Your task to perform on an android device: Add razer thresher to the cart on target Image 0: 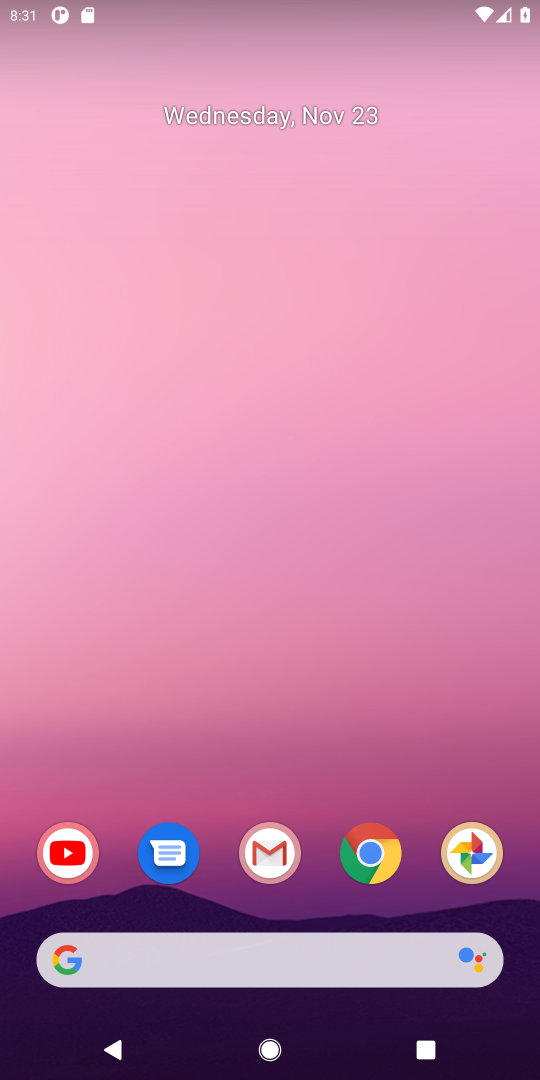
Step 0: click (377, 855)
Your task to perform on an android device: Add razer thresher to the cart on target Image 1: 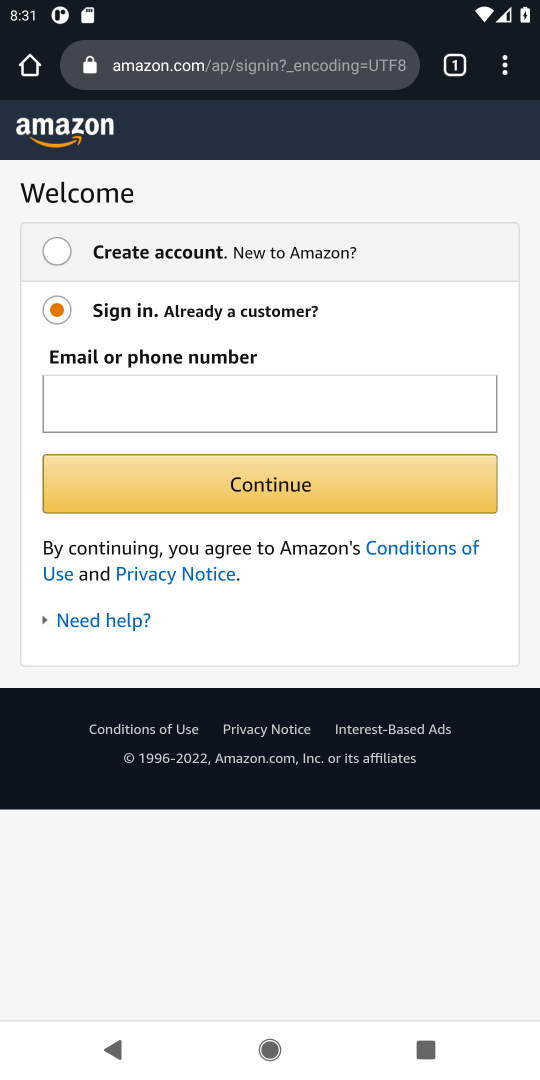
Step 1: click (196, 71)
Your task to perform on an android device: Add razer thresher to the cart on target Image 2: 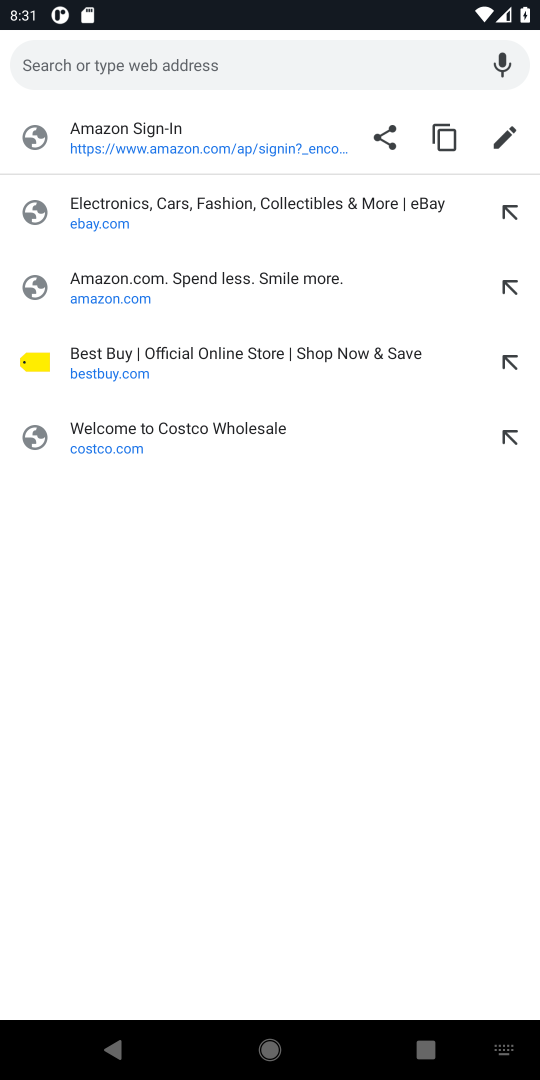
Step 2: type "target.com"
Your task to perform on an android device: Add razer thresher to the cart on target Image 3: 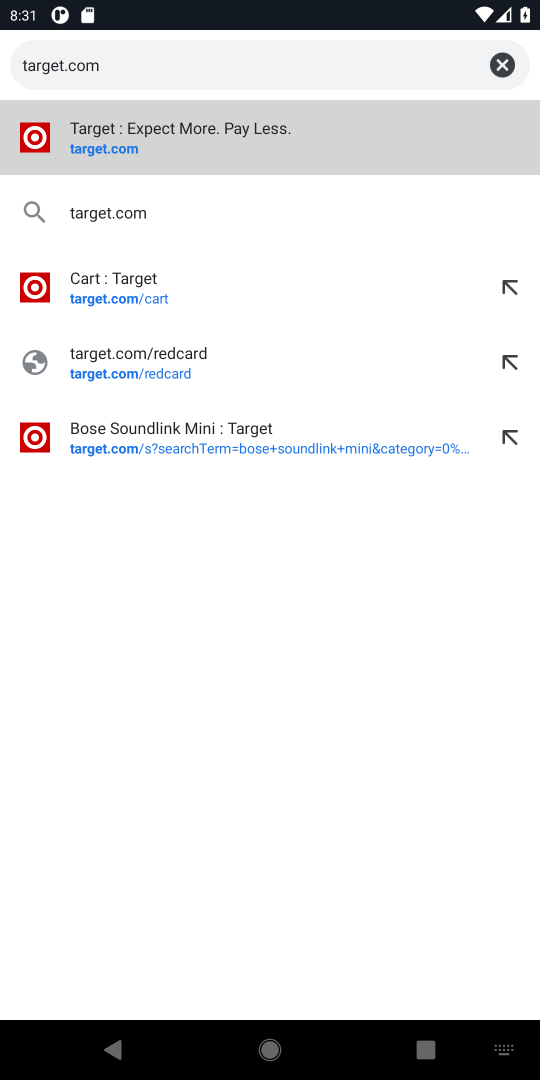
Step 3: click (119, 153)
Your task to perform on an android device: Add razer thresher to the cart on target Image 4: 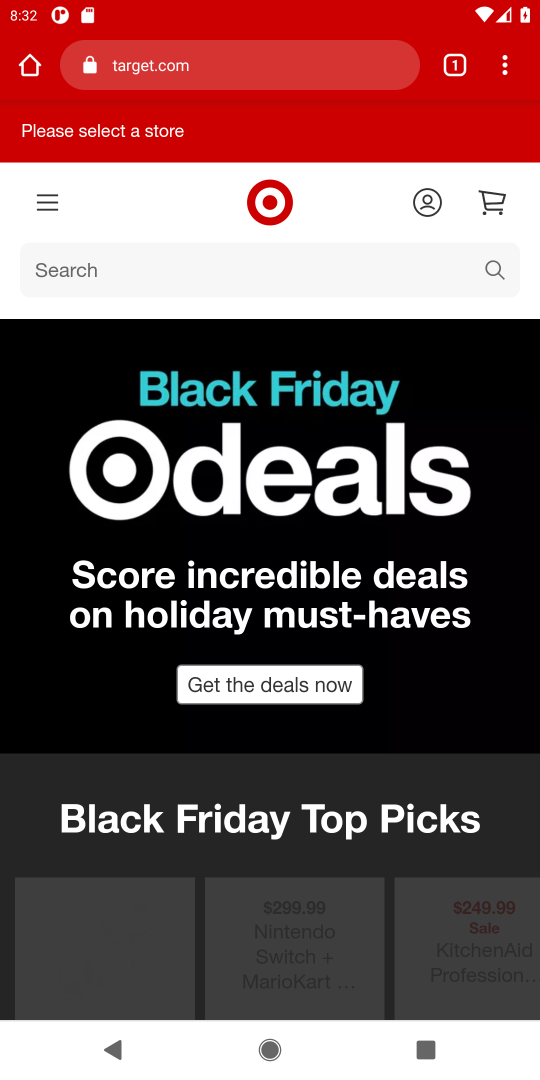
Step 4: click (496, 268)
Your task to perform on an android device: Add razer thresher to the cart on target Image 5: 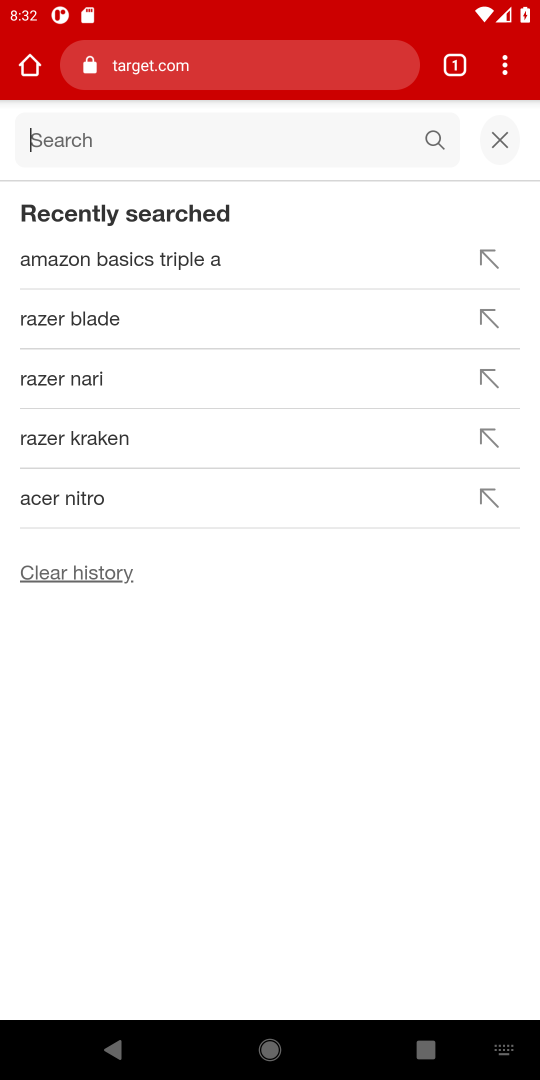
Step 5: type "razer thresher"
Your task to perform on an android device: Add razer thresher to the cart on target Image 6: 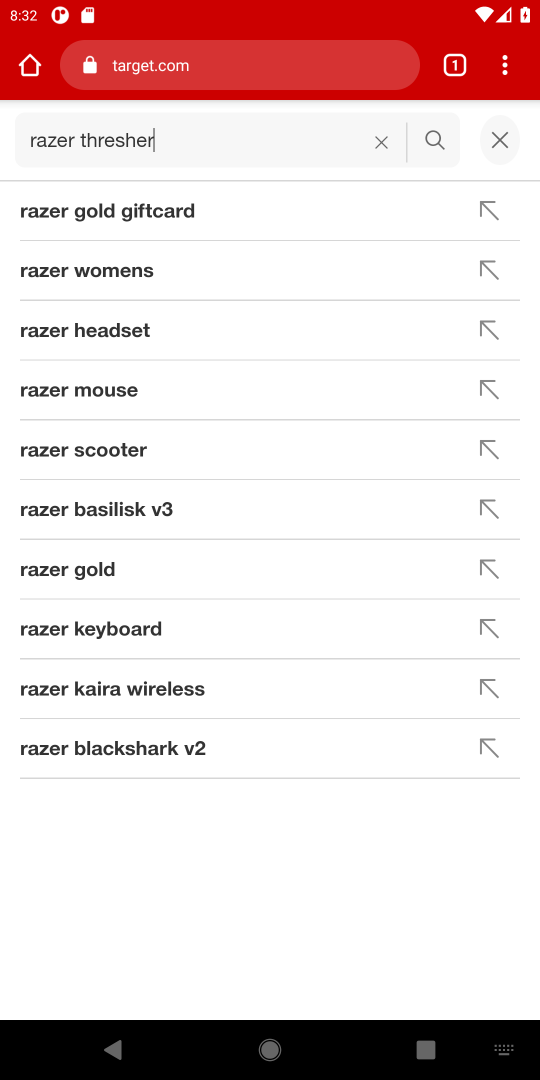
Step 6: click (434, 144)
Your task to perform on an android device: Add razer thresher to the cart on target Image 7: 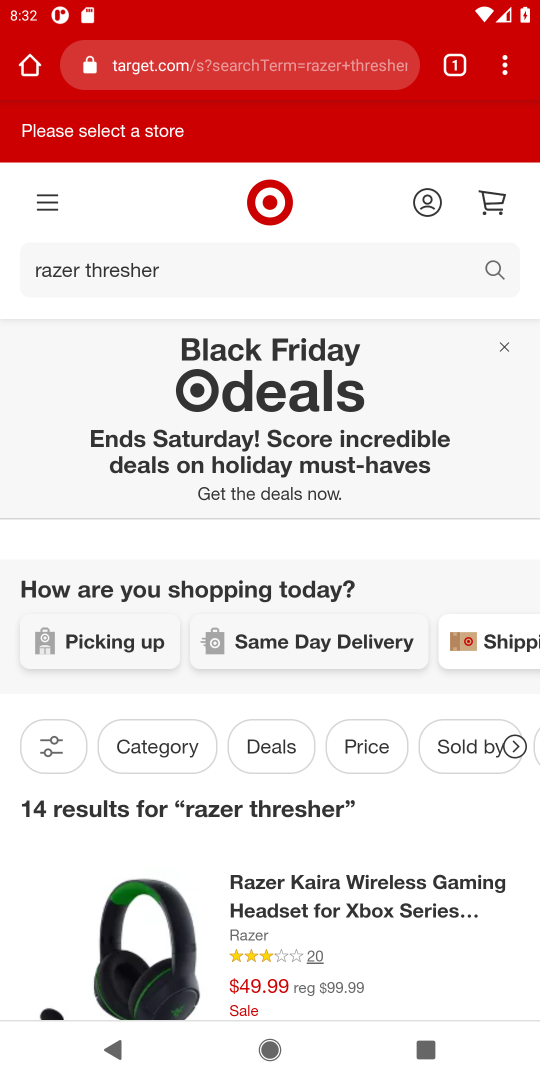
Step 7: task complete